Your task to perform on an android device: move a message to another label in the gmail app Image 0: 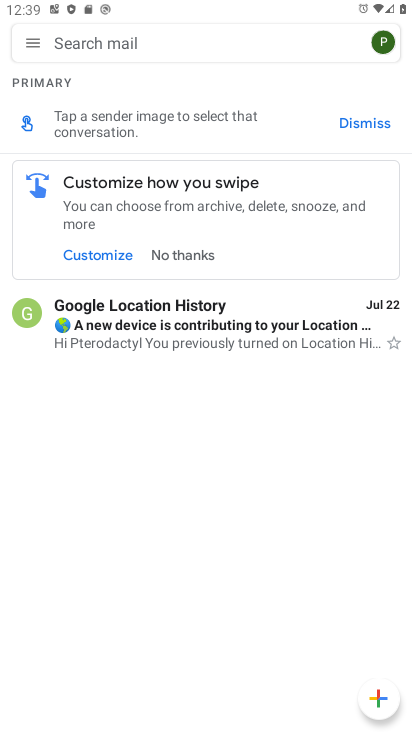
Step 0: press home button
Your task to perform on an android device: move a message to another label in the gmail app Image 1: 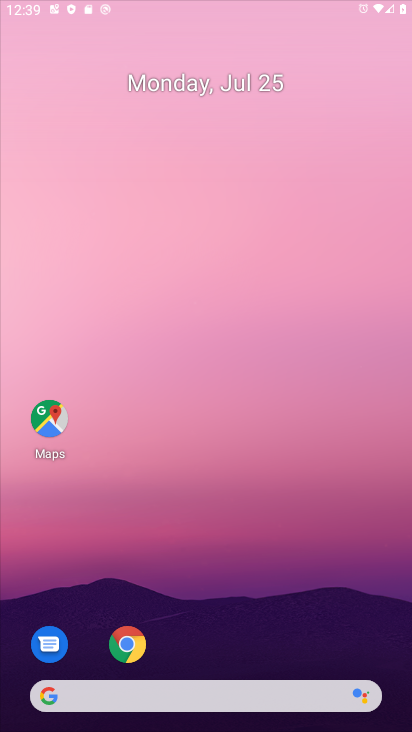
Step 1: drag from (393, 702) to (222, 47)
Your task to perform on an android device: move a message to another label in the gmail app Image 2: 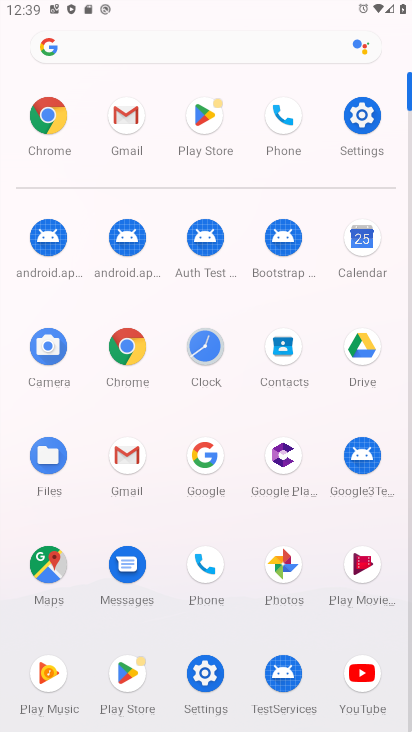
Step 2: click (113, 461)
Your task to perform on an android device: move a message to another label in the gmail app Image 3: 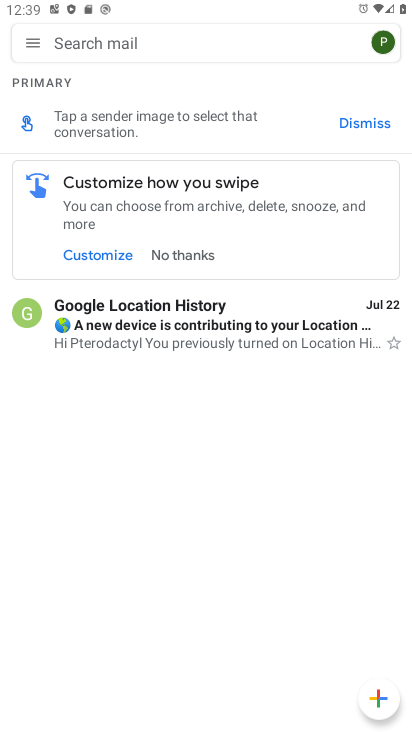
Step 3: task complete